Your task to perform on an android device: change the upload size in google photos Image 0: 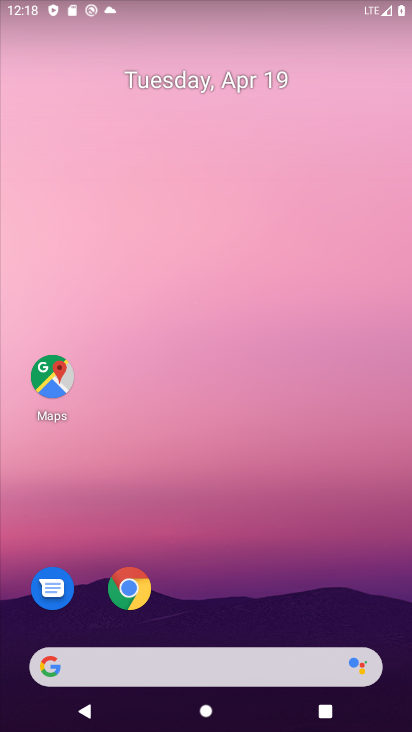
Step 0: drag from (372, 594) to (386, 25)
Your task to perform on an android device: change the upload size in google photos Image 1: 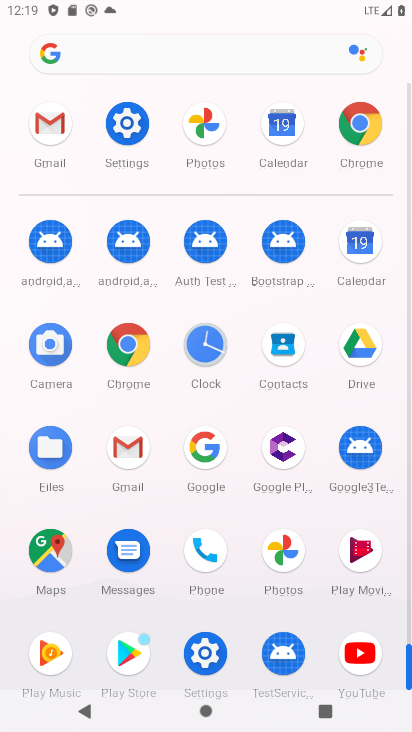
Step 1: click (202, 128)
Your task to perform on an android device: change the upload size in google photos Image 2: 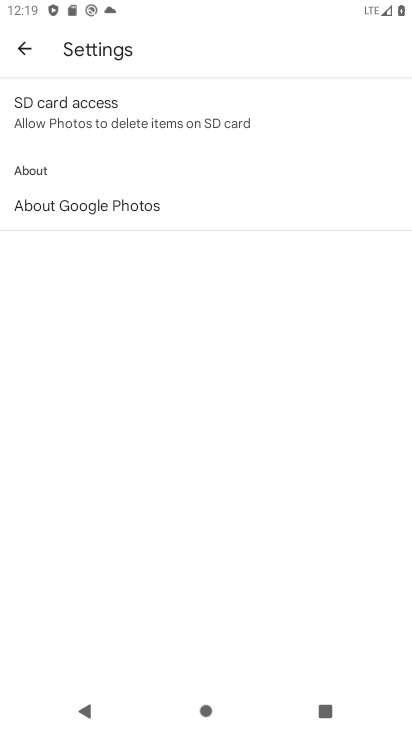
Step 2: click (18, 43)
Your task to perform on an android device: change the upload size in google photos Image 3: 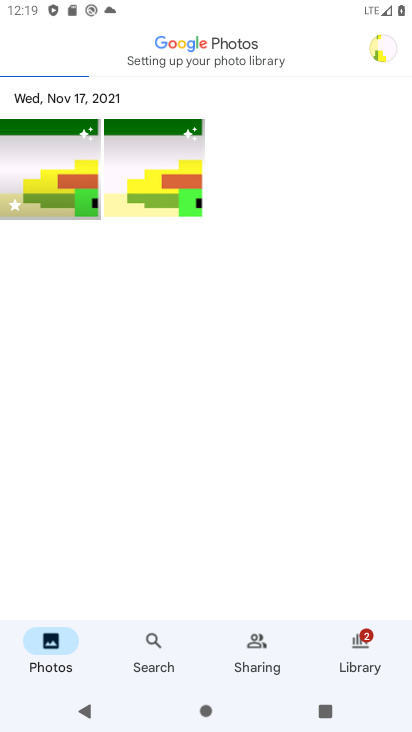
Step 3: click (384, 49)
Your task to perform on an android device: change the upload size in google photos Image 4: 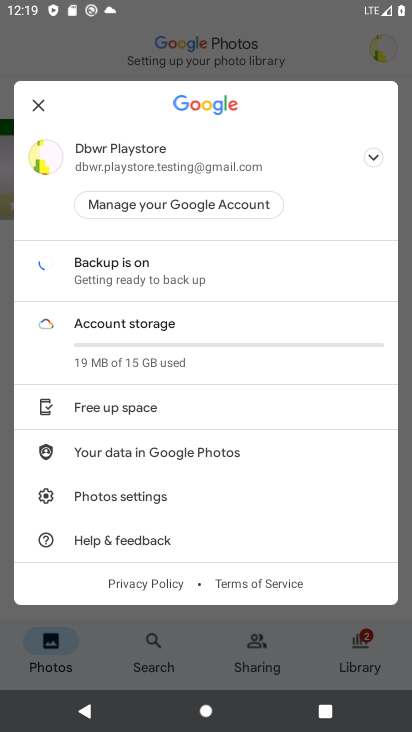
Step 4: click (139, 500)
Your task to perform on an android device: change the upload size in google photos Image 5: 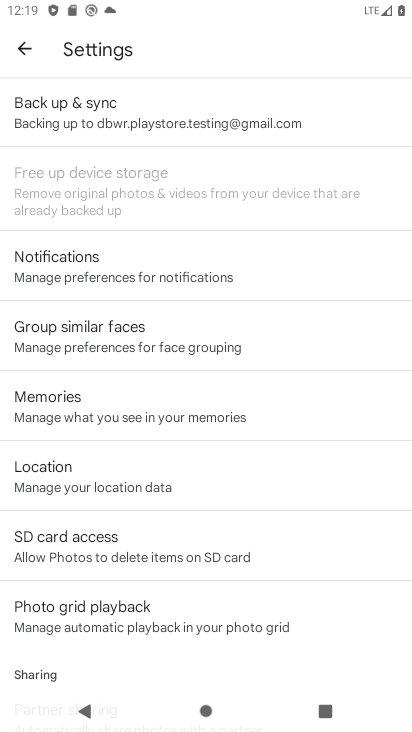
Step 5: click (205, 112)
Your task to perform on an android device: change the upload size in google photos Image 6: 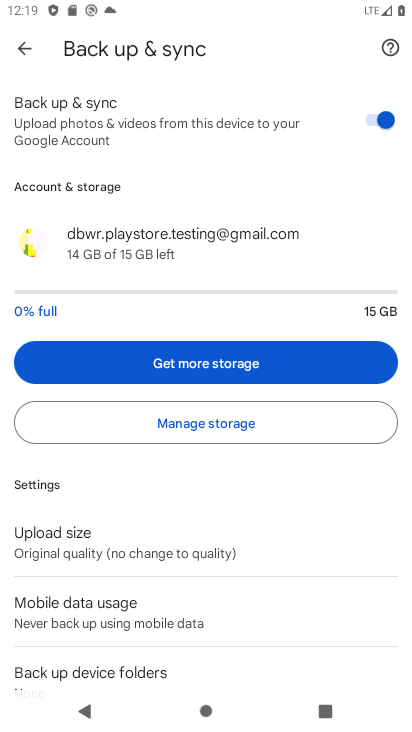
Step 6: click (126, 546)
Your task to perform on an android device: change the upload size in google photos Image 7: 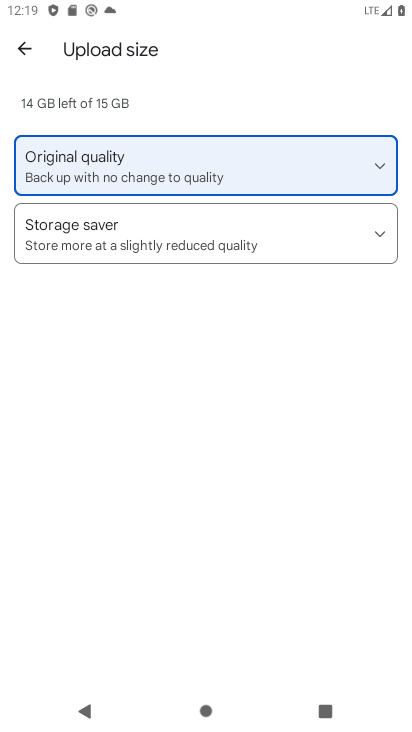
Step 7: click (164, 239)
Your task to perform on an android device: change the upload size in google photos Image 8: 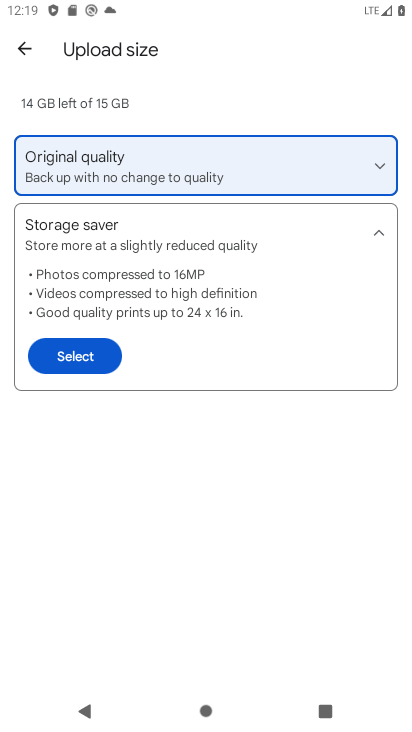
Step 8: click (90, 352)
Your task to perform on an android device: change the upload size in google photos Image 9: 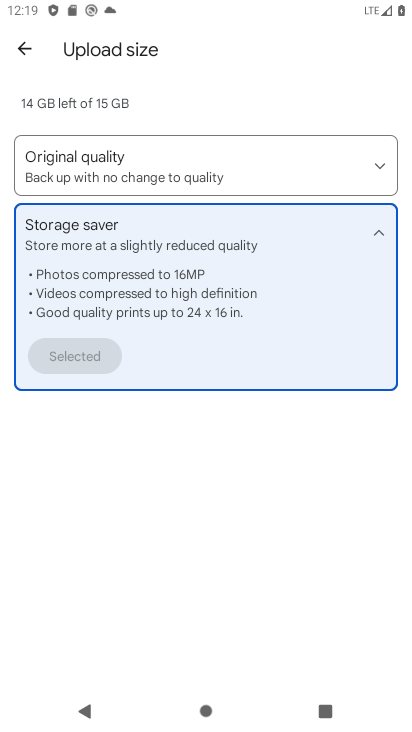
Step 9: task complete